Your task to perform on an android device: Open Yahoo.com Image 0: 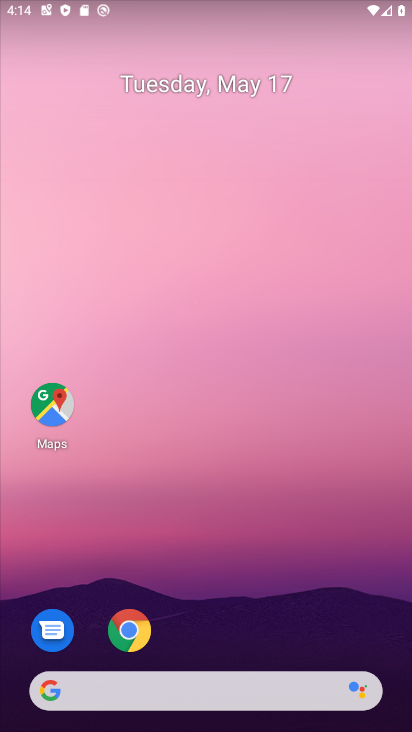
Step 0: click (125, 632)
Your task to perform on an android device: Open Yahoo.com Image 1: 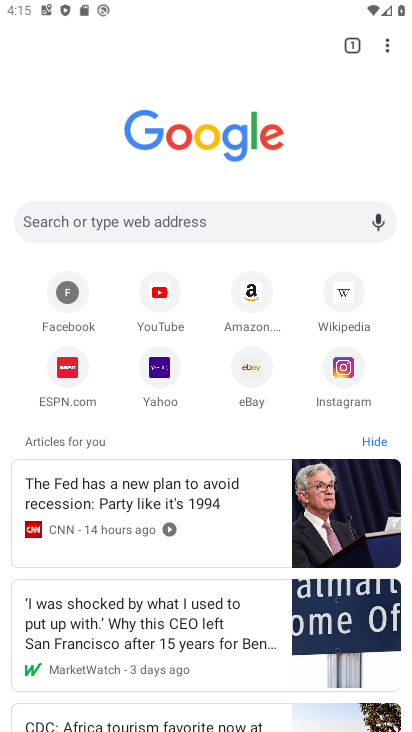
Step 1: click (157, 366)
Your task to perform on an android device: Open Yahoo.com Image 2: 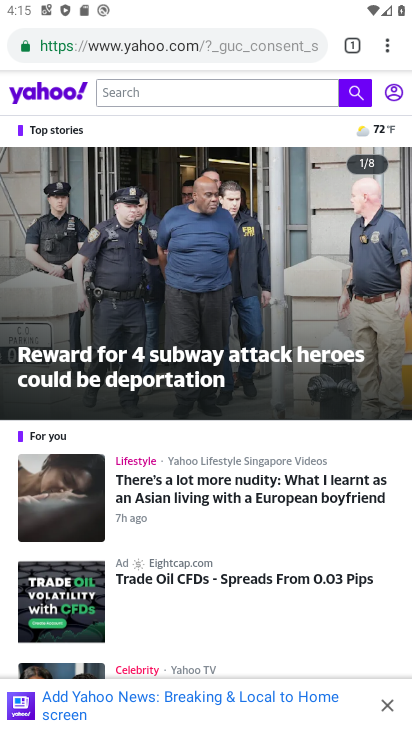
Step 2: task complete